Your task to perform on an android device: Play the last video I watched on Youtube Image 0: 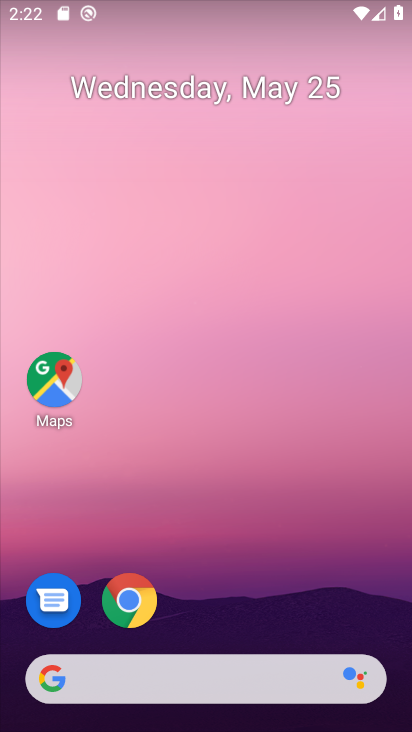
Step 0: drag from (207, 659) to (315, 98)
Your task to perform on an android device: Play the last video I watched on Youtube Image 1: 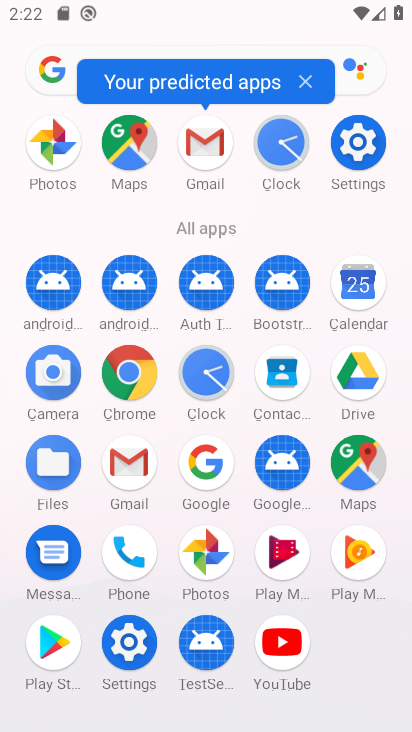
Step 1: click (277, 655)
Your task to perform on an android device: Play the last video I watched on Youtube Image 2: 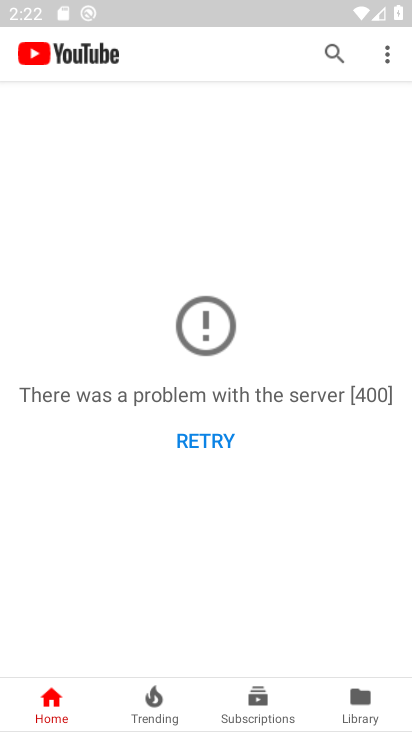
Step 2: click (349, 698)
Your task to perform on an android device: Play the last video I watched on Youtube Image 3: 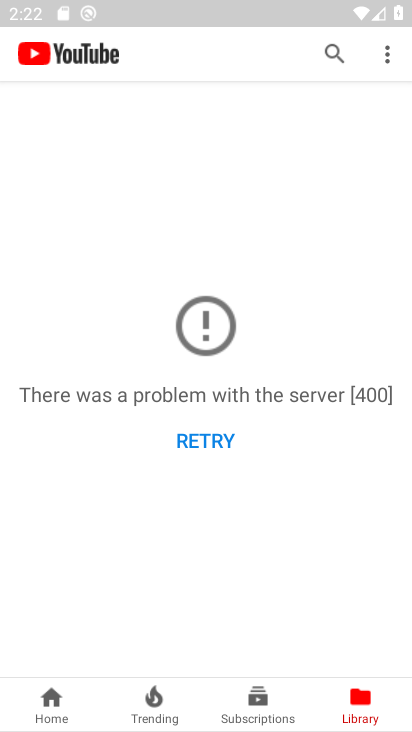
Step 3: task complete